Your task to perform on an android device: Is it going to rain today? Image 0: 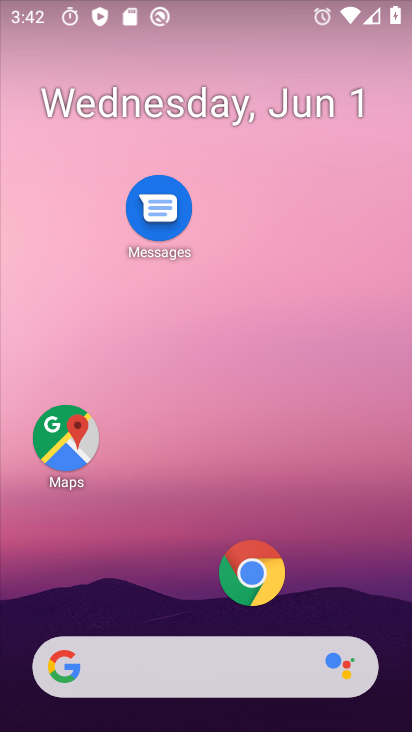
Step 0: drag from (182, 615) to (212, 156)
Your task to perform on an android device: Is it going to rain today? Image 1: 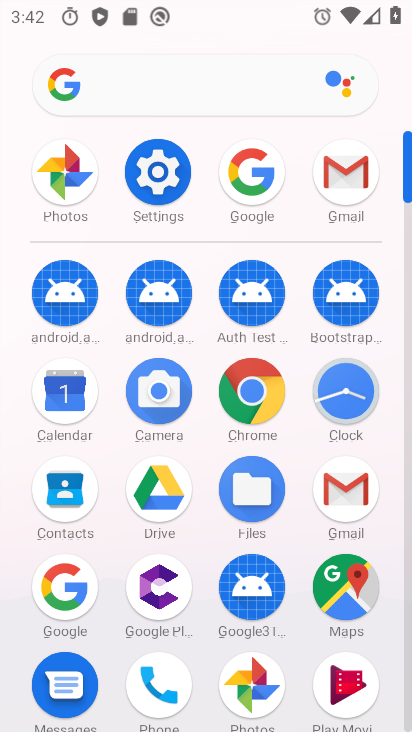
Step 1: click (229, 172)
Your task to perform on an android device: Is it going to rain today? Image 2: 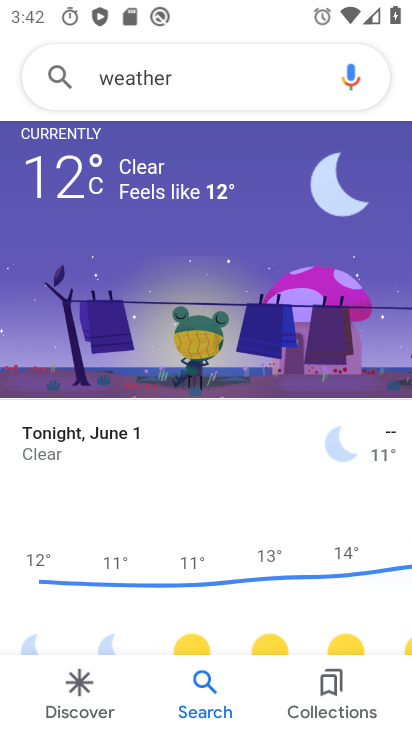
Step 2: task complete